Your task to perform on an android device: open chrome and create a bookmark for the current page Image 0: 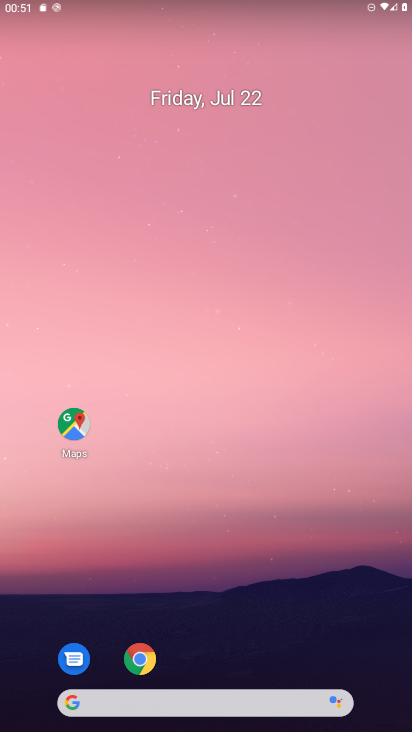
Step 0: click (142, 656)
Your task to perform on an android device: open chrome and create a bookmark for the current page Image 1: 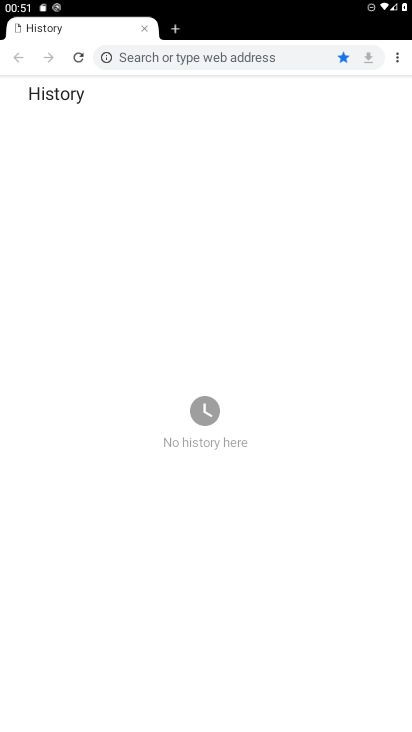
Step 1: task complete